Your task to perform on an android device: Open the Play Movies app and select the watchlist tab. Image 0: 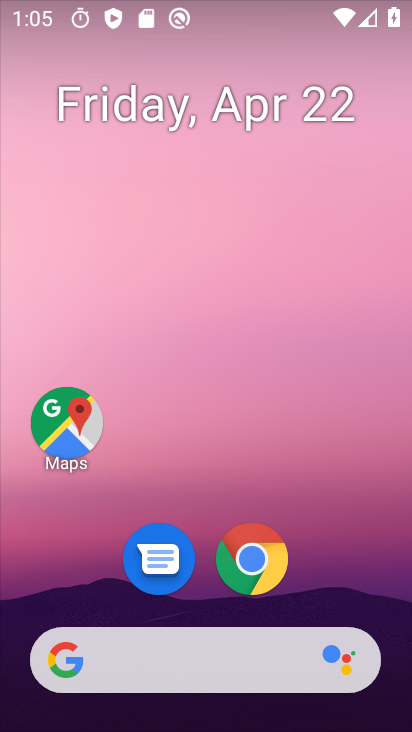
Step 0: drag from (338, 574) to (357, 199)
Your task to perform on an android device: Open the Play Movies app and select the watchlist tab. Image 1: 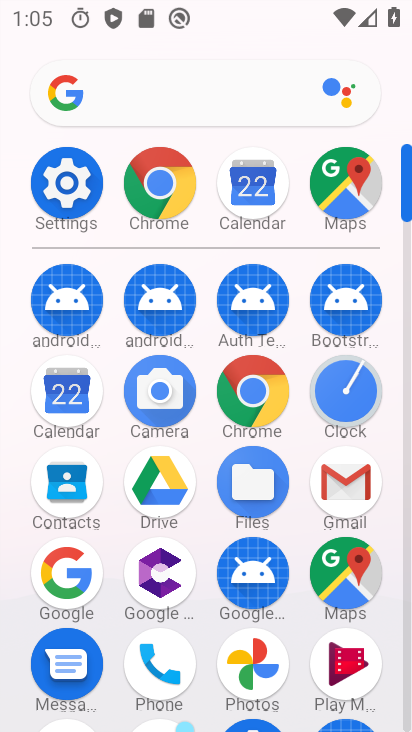
Step 1: drag from (391, 630) to (395, 477)
Your task to perform on an android device: Open the Play Movies app and select the watchlist tab. Image 2: 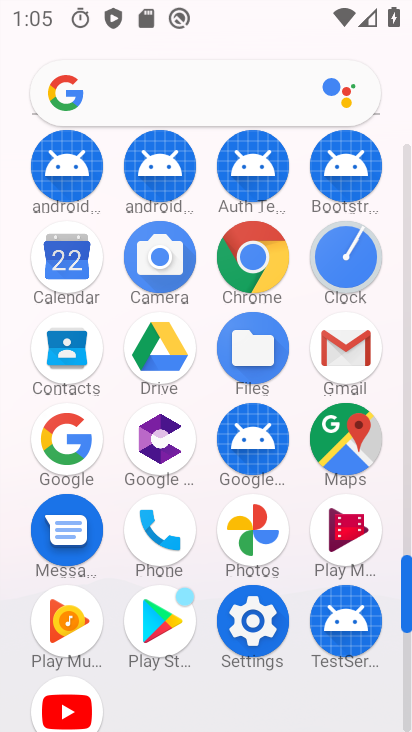
Step 2: click (354, 543)
Your task to perform on an android device: Open the Play Movies app and select the watchlist tab. Image 3: 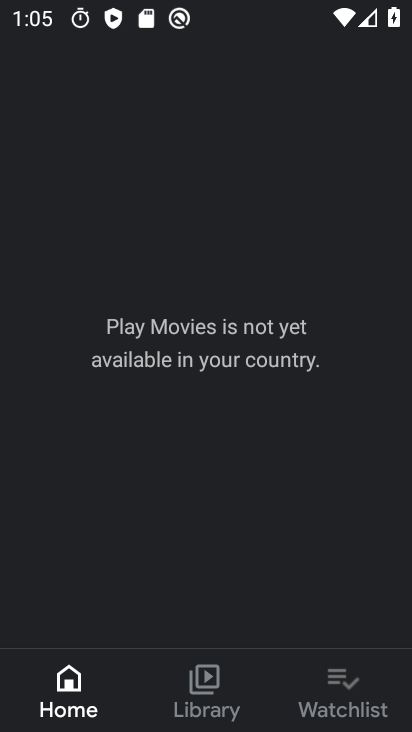
Step 3: click (350, 692)
Your task to perform on an android device: Open the Play Movies app and select the watchlist tab. Image 4: 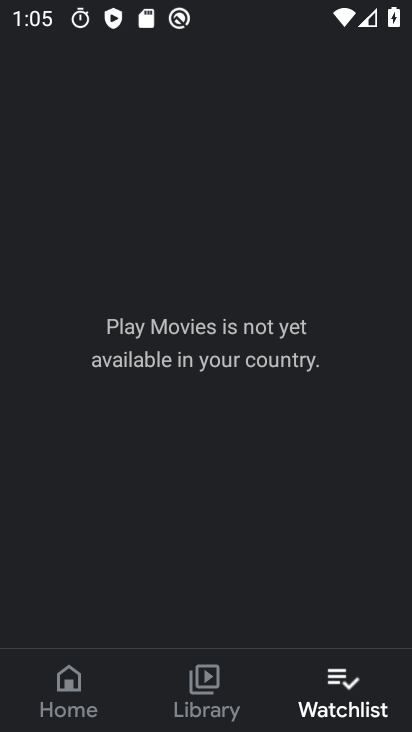
Step 4: task complete